Your task to perform on an android device: Toggle the flashlight Image 0: 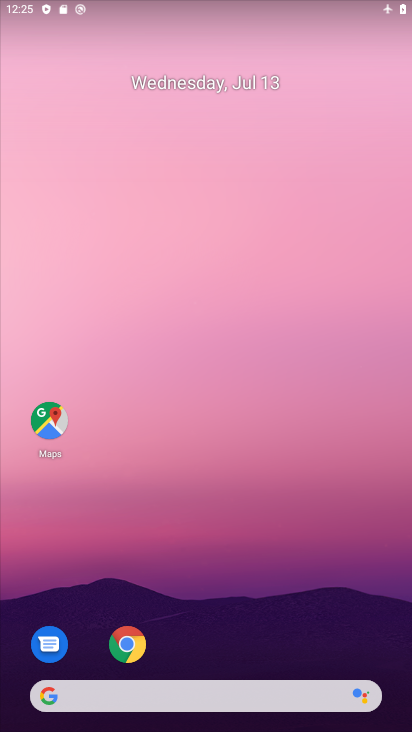
Step 0: drag from (252, 613) to (281, 204)
Your task to perform on an android device: Toggle the flashlight Image 1: 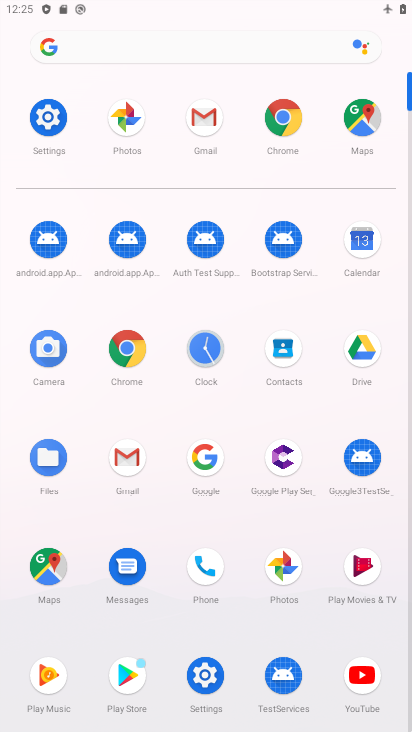
Step 1: click (57, 118)
Your task to perform on an android device: Toggle the flashlight Image 2: 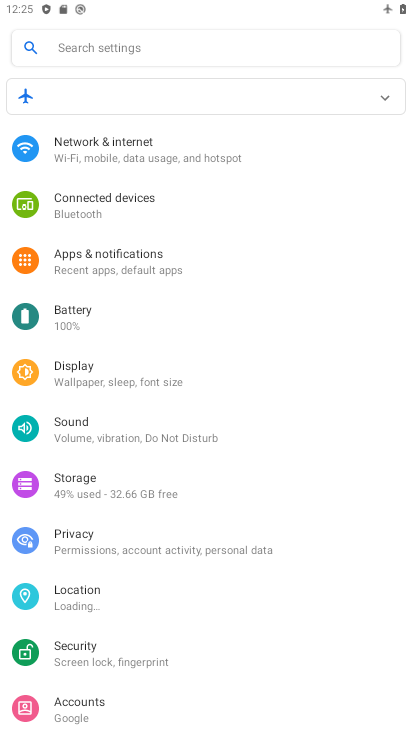
Step 2: click (100, 377)
Your task to perform on an android device: Toggle the flashlight Image 3: 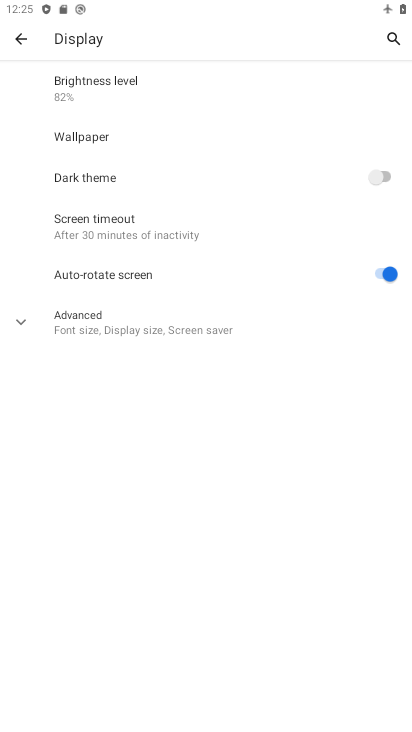
Step 3: click (119, 237)
Your task to perform on an android device: Toggle the flashlight Image 4: 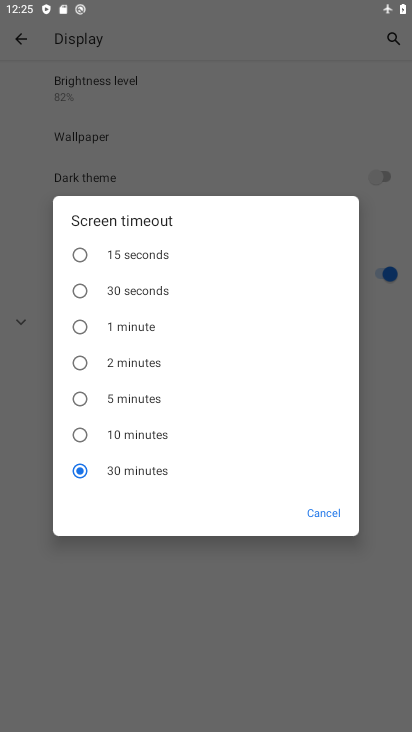
Step 4: task complete